Your task to perform on an android device: change the clock style Image 0: 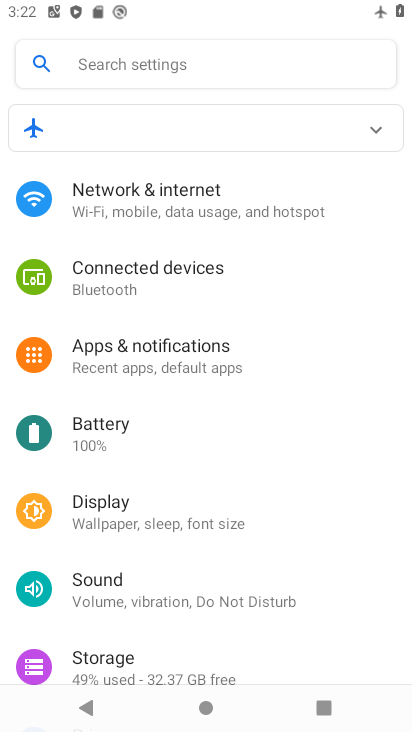
Step 0: drag from (229, 623) to (224, 498)
Your task to perform on an android device: change the clock style Image 1: 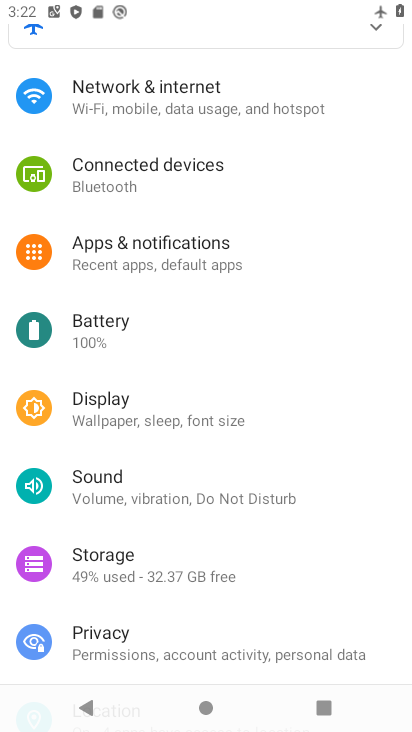
Step 1: press home button
Your task to perform on an android device: change the clock style Image 2: 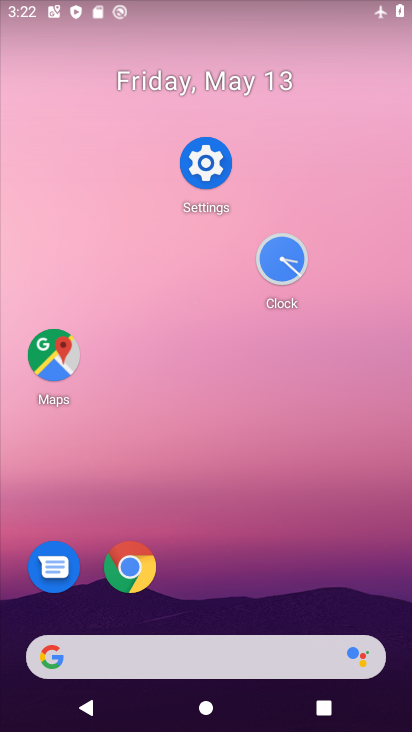
Step 2: click (290, 256)
Your task to perform on an android device: change the clock style Image 3: 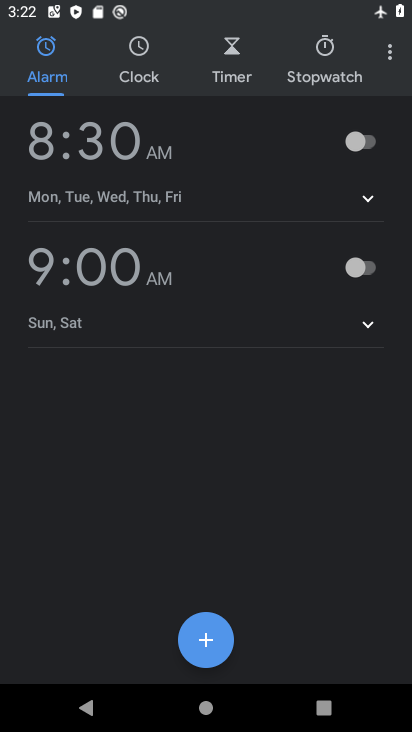
Step 3: click (390, 60)
Your task to perform on an android device: change the clock style Image 4: 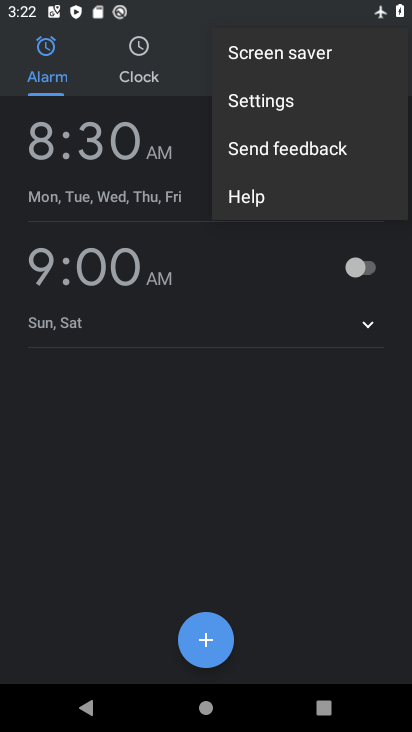
Step 4: click (332, 88)
Your task to perform on an android device: change the clock style Image 5: 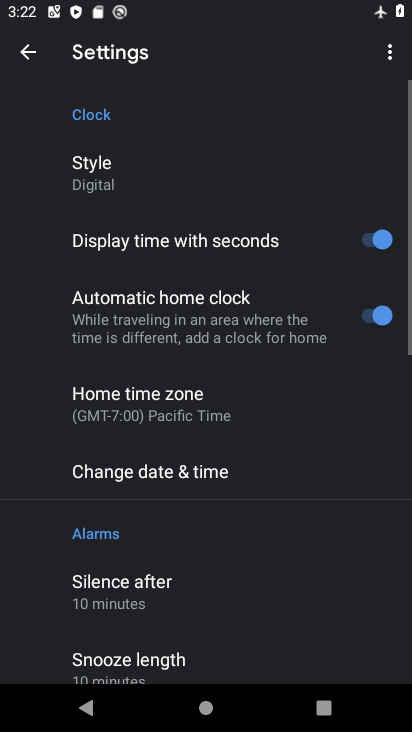
Step 5: click (222, 150)
Your task to perform on an android device: change the clock style Image 6: 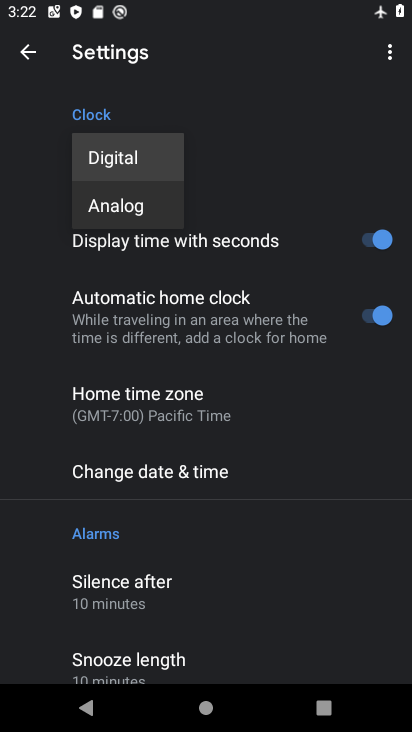
Step 6: click (154, 217)
Your task to perform on an android device: change the clock style Image 7: 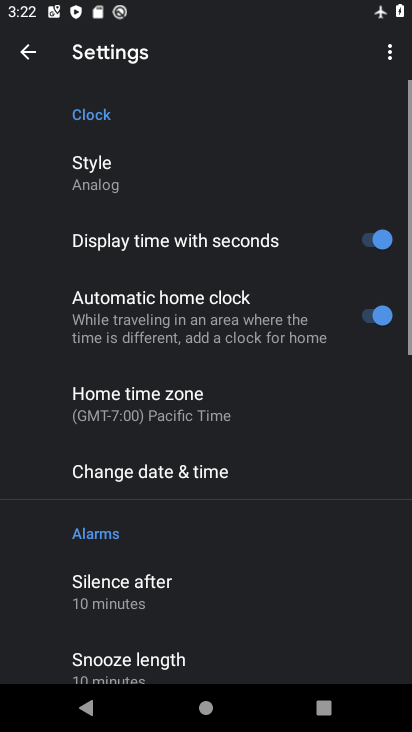
Step 7: task complete